Your task to perform on an android device: change keyboard looks Image 0: 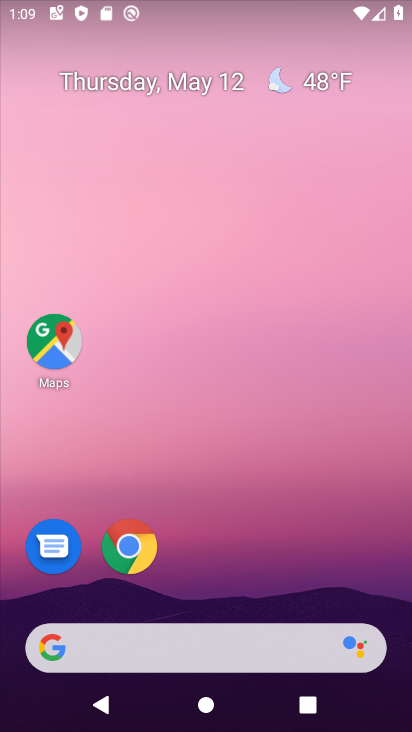
Step 0: press home button
Your task to perform on an android device: change keyboard looks Image 1: 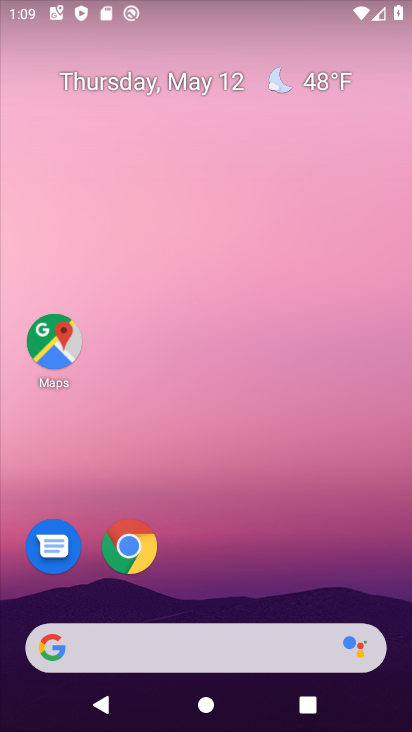
Step 1: drag from (143, 644) to (302, 111)
Your task to perform on an android device: change keyboard looks Image 2: 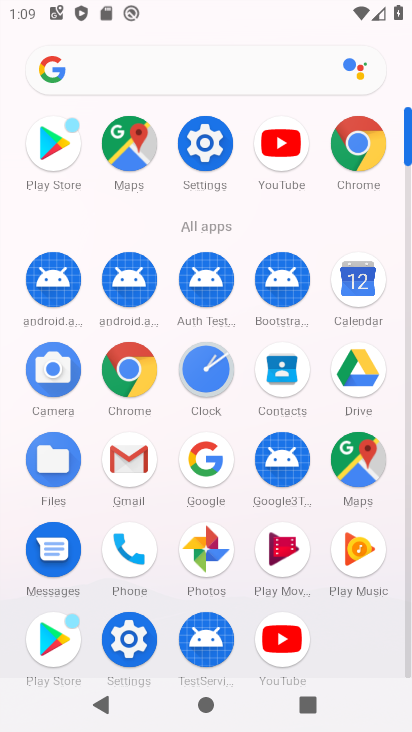
Step 2: click (208, 142)
Your task to perform on an android device: change keyboard looks Image 3: 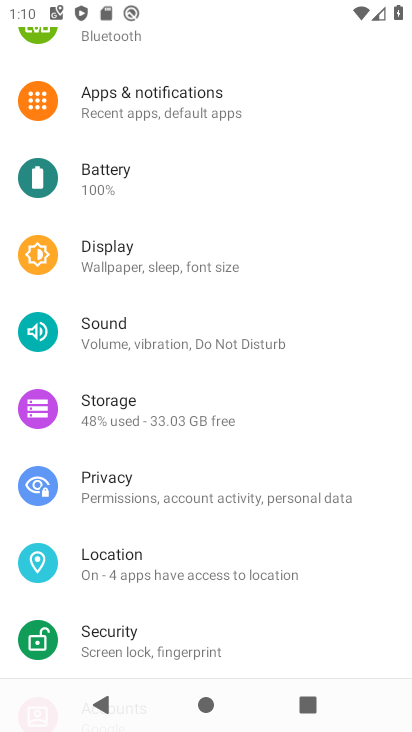
Step 3: drag from (182, 604) to (347, 90)
Your task to perform on an android device: change keyboard looks Image 4: 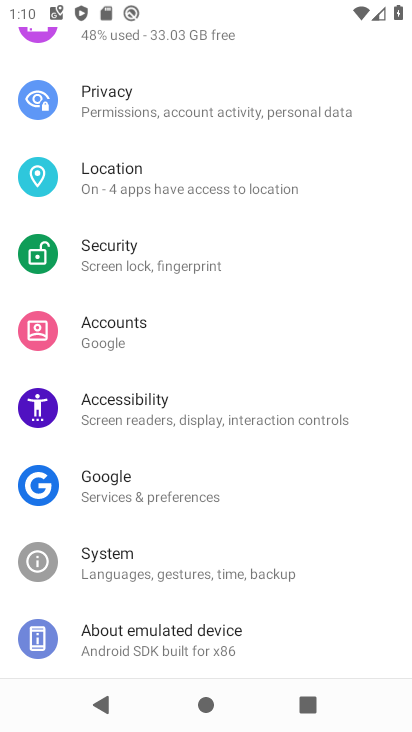
Step 4: click (126, 559)
Your task to perform on an android device: change keyboard looks Image 5: 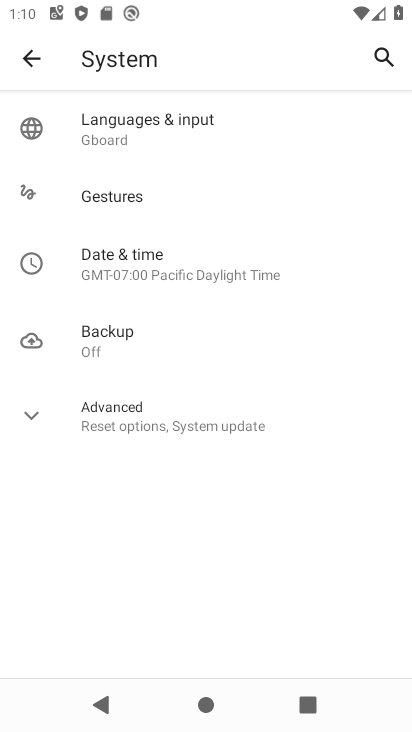
Step 5: click (111, 134)
Your task to perform on an android device: change keyboard looks Image 6: 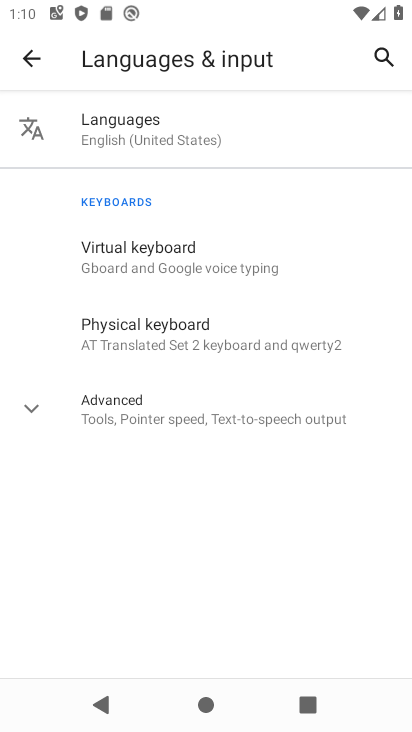
Step 6: click (113, 255)
Your task to perform on an android device: change keyboard looks Image 7: 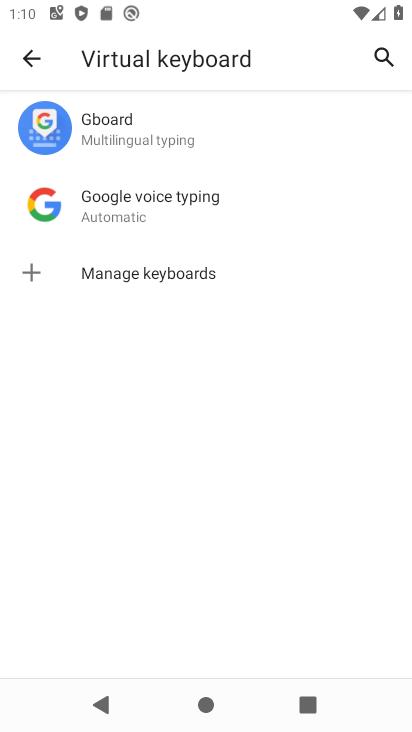
Step 7: click (126, 124)
Your task to perform on an android device: change keyboard looks Image 8: 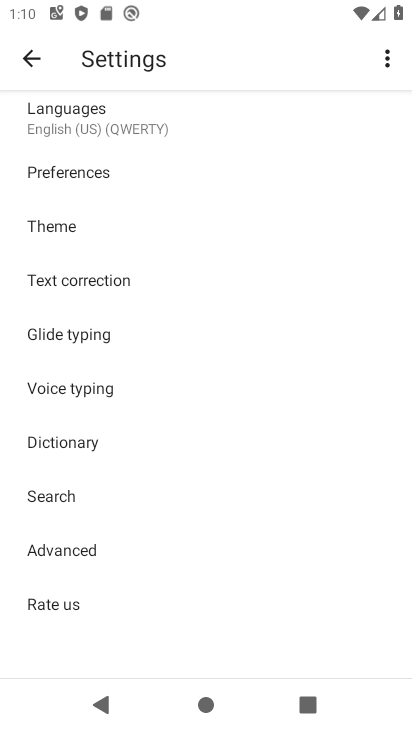
Step 8: click (57, 226)
Your task to perform on an android device: change keyboard looks Image 9: 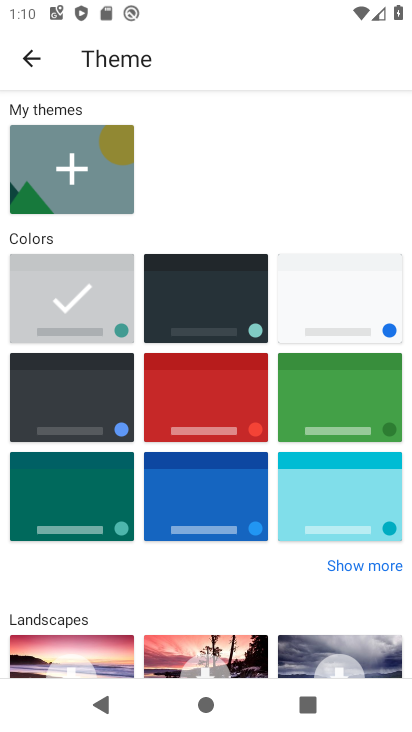
Step 9: click (225, 410)
Your task to perform on an android device: change keyboard looks Image 10: 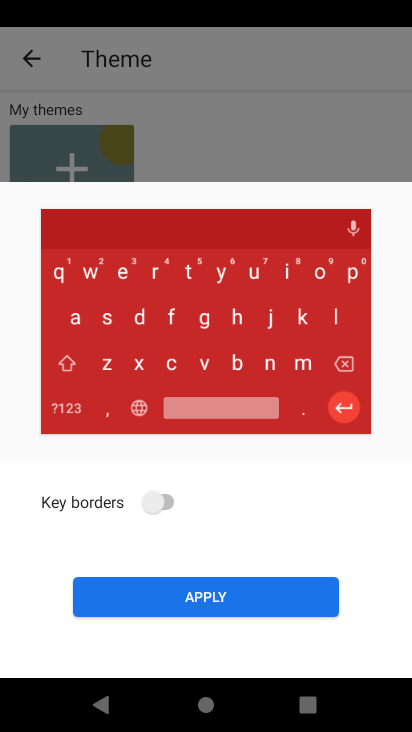
Step 10: click (188, 595)
Your task to perform on an android device: change keyboard looks Image 11: 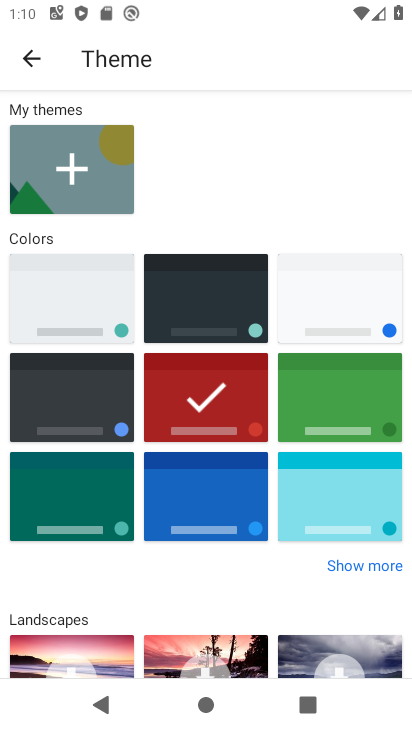
Step 11: task complete